Your task to perform on an android device: Go to location settings Image 0: 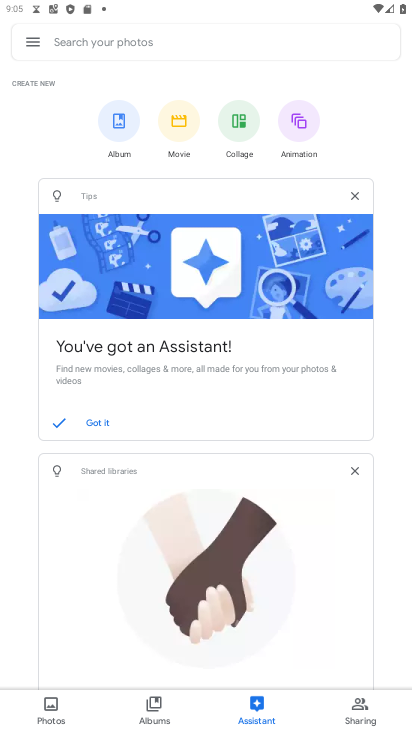
Step 0: press home button
Your task to perform on an android device: Go to location settings Image 1: 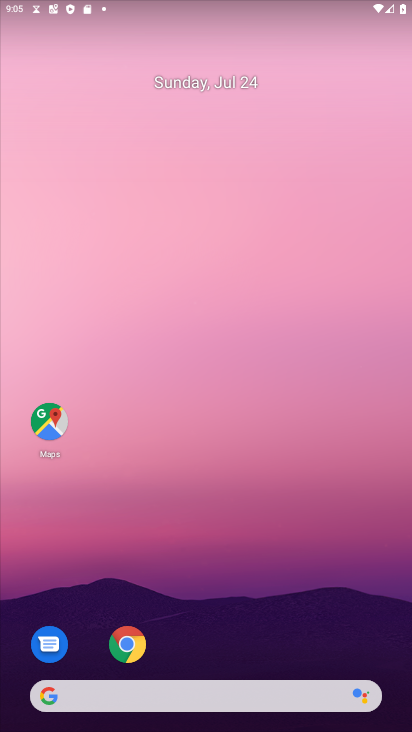
Step 1: drag from (221, 660) to (248, 107)
Your task to perform on an android device: Go to location settings Image 2: 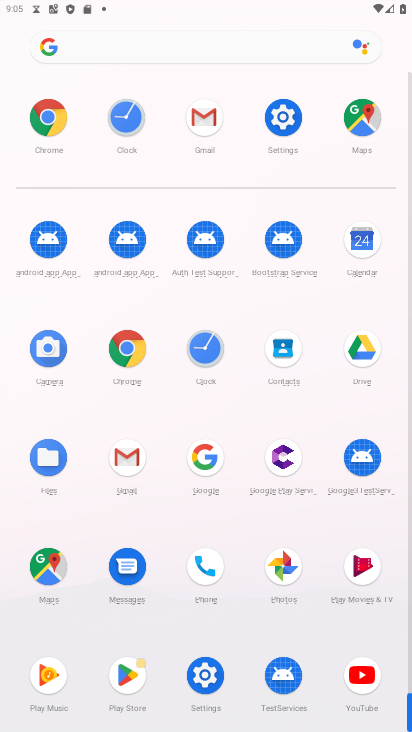
Step 2: click (216, 673)
Your task to perform on an android device: Go to location settings Image 3: 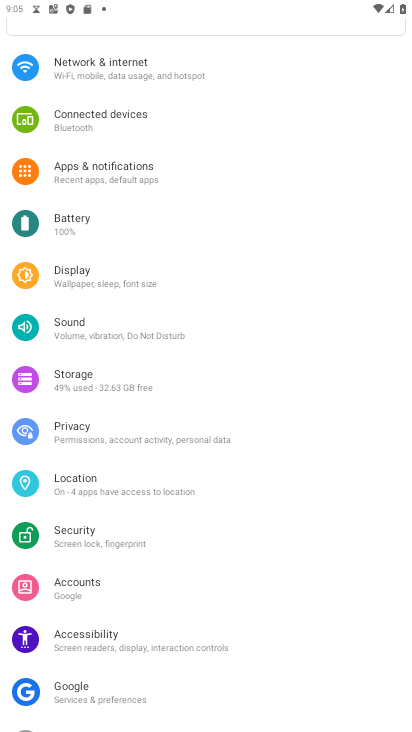
Step 3: click (110, 491)
Your task to perform on an android device: Go to location settings Image 4: 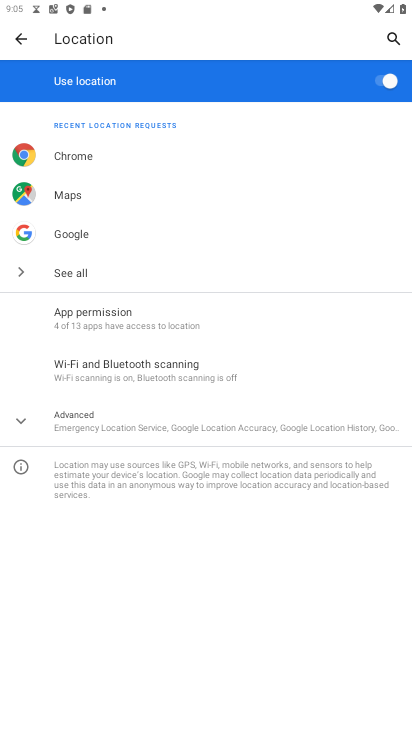
Step 4: task complete